Your task to perform on an android device: find snoozed emails in the gmail app Image 0: 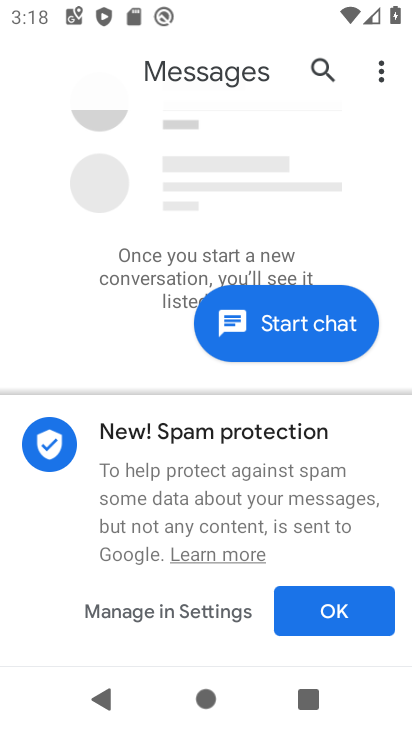
Step 0: press back button
Your task to perform on an android device: find snoozed emails in the gmail app Image 1: 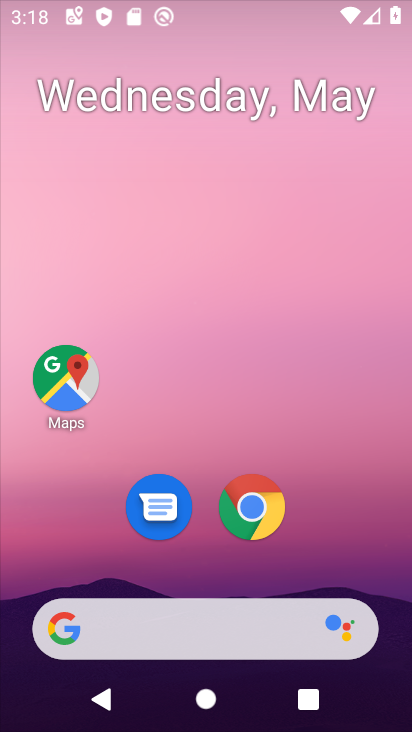
Step 1: drag from (167, 572) to (226, 86)
Your task to perform on an android device: find snoozed emails in the gmail app Image 2: 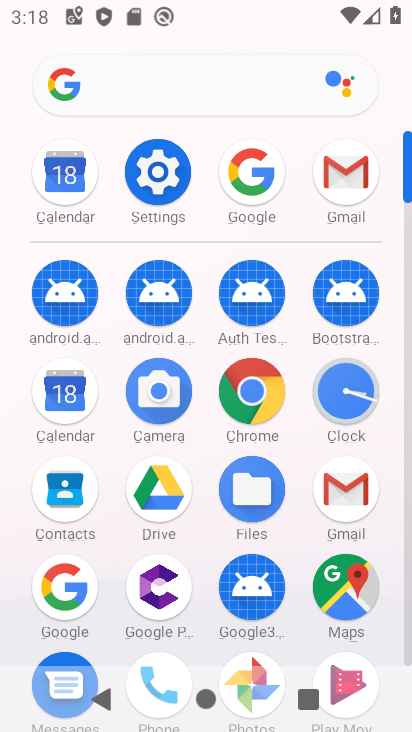
Step 2: click (343, 170)
Your task to perform on an android device: find snoozed emails in the gmail app Image 3: 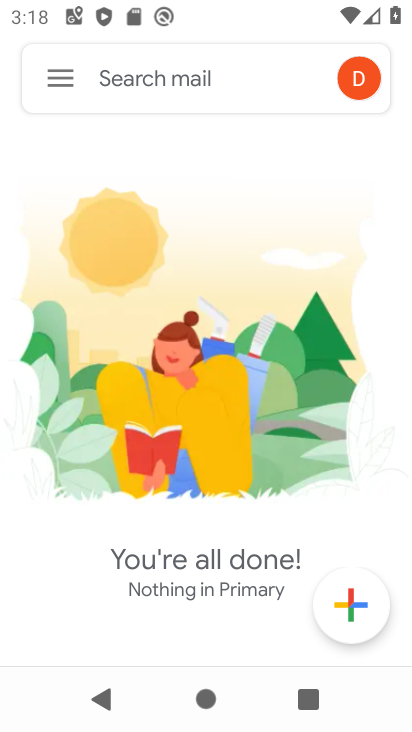
Step 3: click (60, 75)
Your task to perform on an android device: find snoozed emails in the gmail app Image 4: 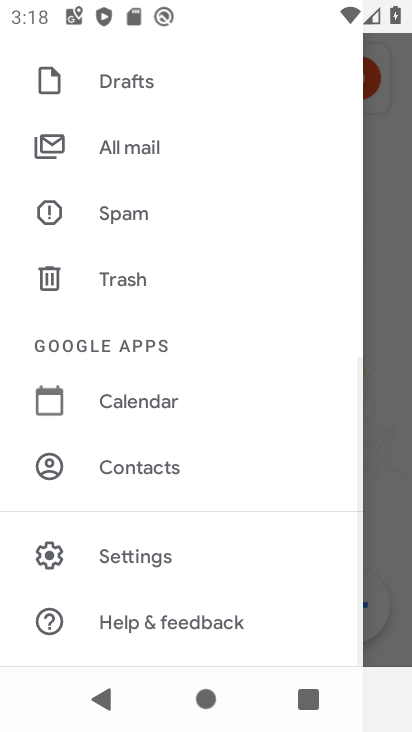
Step 4: drag from (169, 140) to (139, 696)
Your task to perform on an android device: find snoozed emails in the gmail app Image 5: 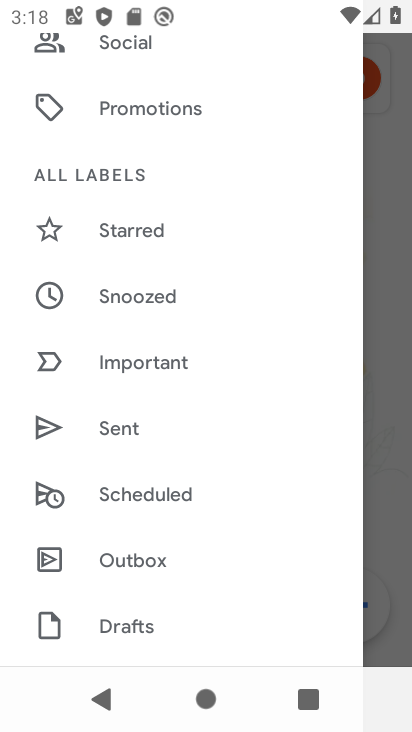
Step 5: drag from (149, 576) to (184, 104)
Your task to perform on an android device: find snoozed emails in the gmail app Image 6: 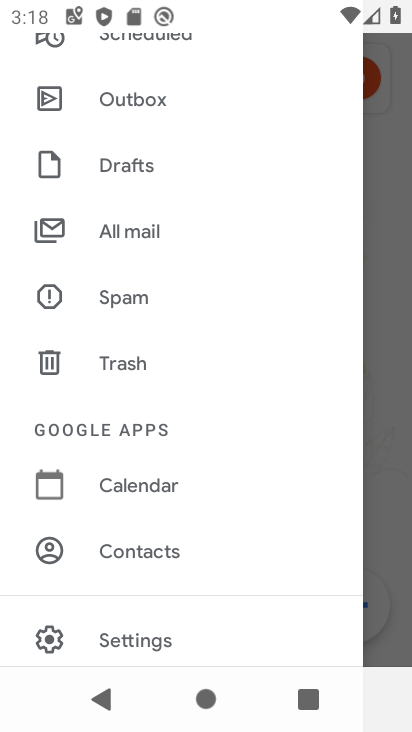
Step 6: click (123, 238)
Your task to perform on an android device: find snoozed emails in the gmail app Image 7: 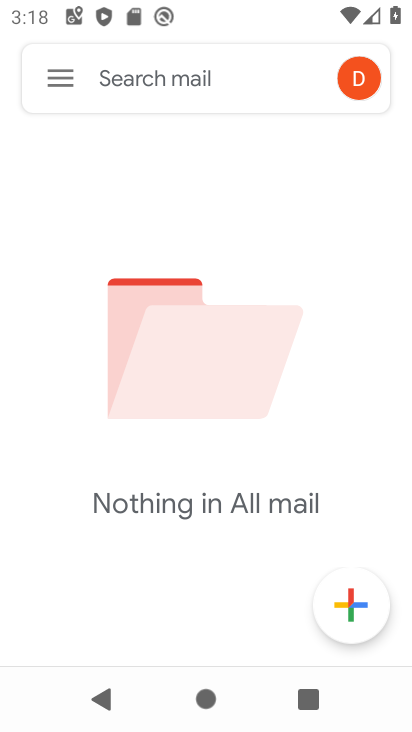
Step 7: click (63, 78)
Your task to perform on an android device: find snoozed emails in the gmail app Image 8: 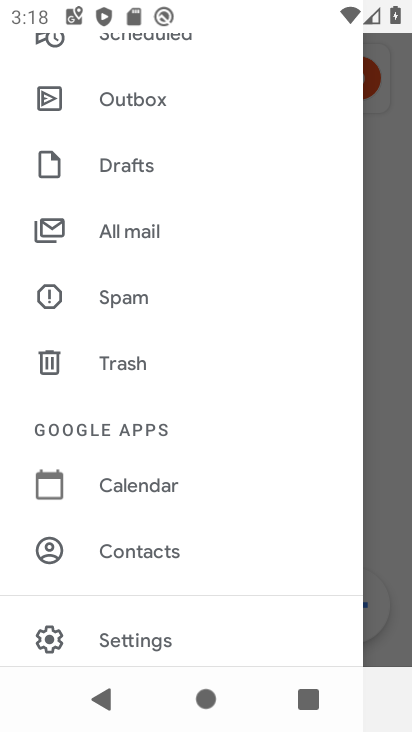
Step 8: drag from (167, 156) to (128, 665)
Your task to perform on an android device: find snoozed emails in the gmail app Image 9: 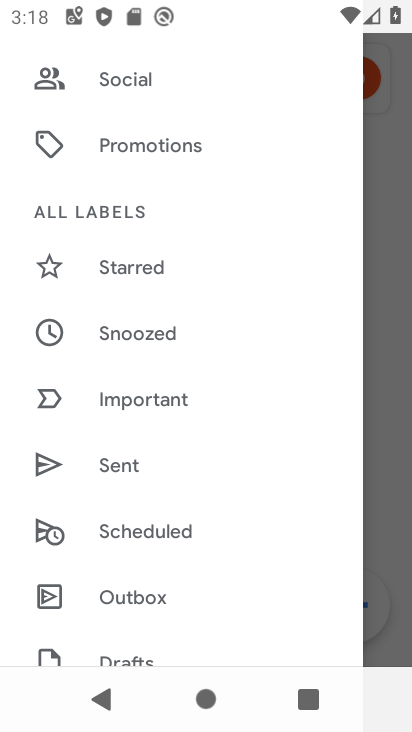
Step 9: click (111, 342)
Your task to perform on an android device: find snoozed emails in the gmail app Image 10: 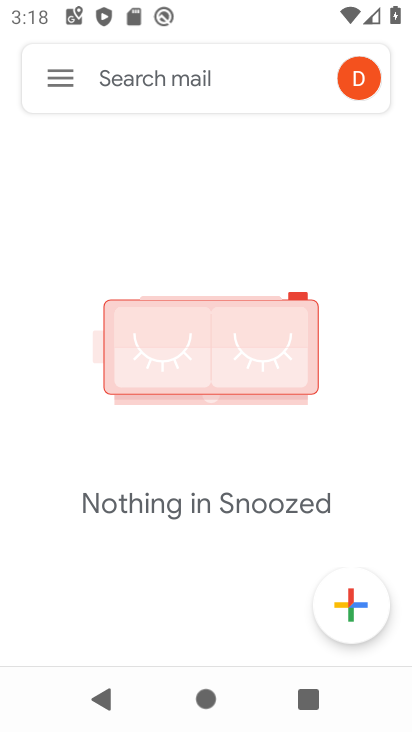
Step 10: task complete